Your task to perform on an android device: Open Android settings Image 0: 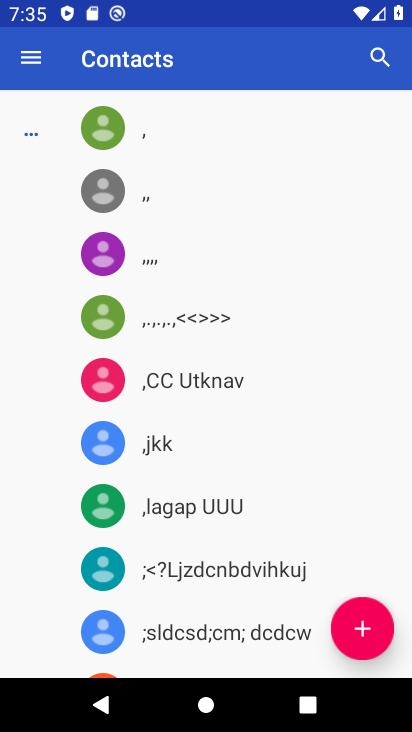
Step 0: press home button
Your task to perform on an android device: Open Android settings Image 1: 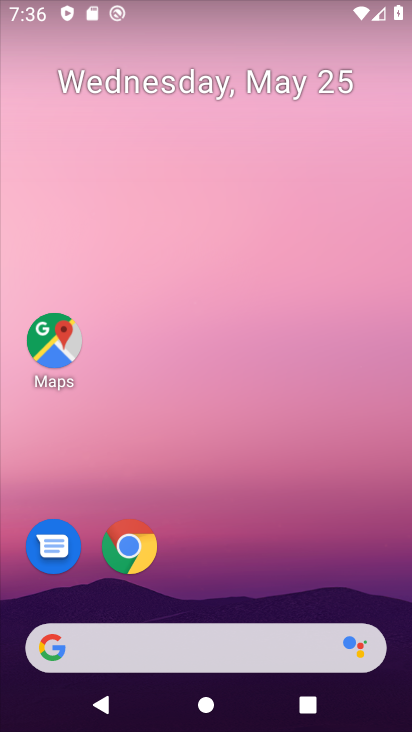
Step 1: drag from (220, 561) to (251, 197)
Your task to perform on an android device: Open Android settings Image 2: 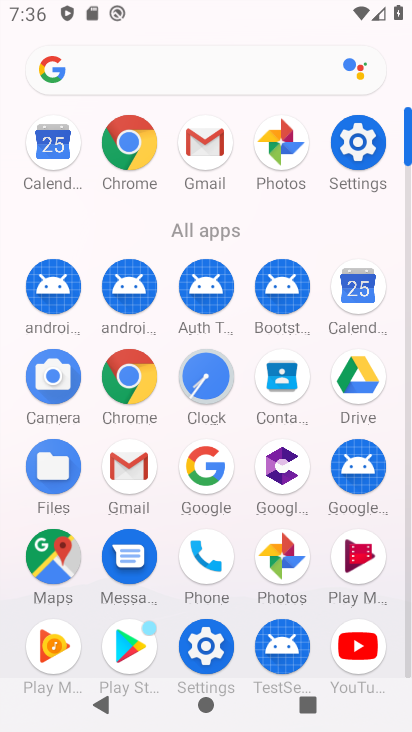
Step 2: click (349, 159)
Your task to perform on an android device: Open Android settings Image 3: 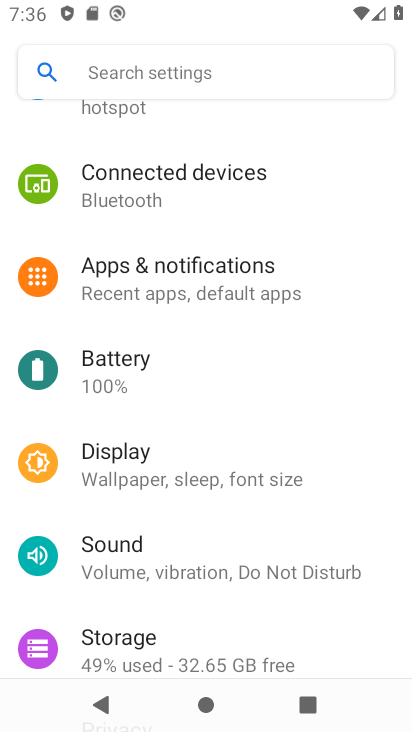
Step 3: drag from (201, 608) to (162, 154)
Your task to perform on an android device: Open Android settings Image 4: 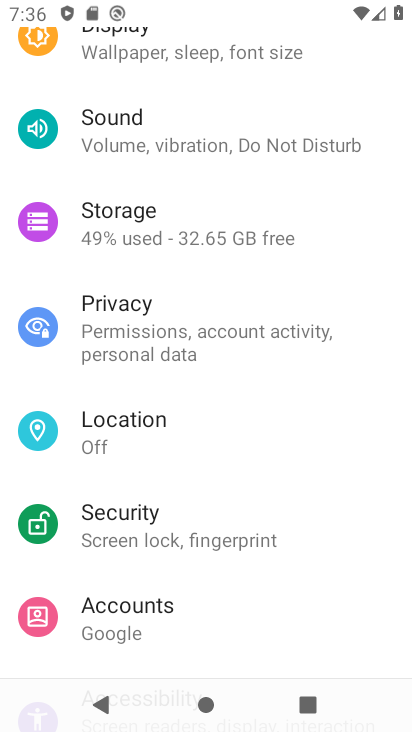
Step 4: drag from (180, 606) to (274, 201)
Your task to perform on an android device: Open Android settings Image 5: 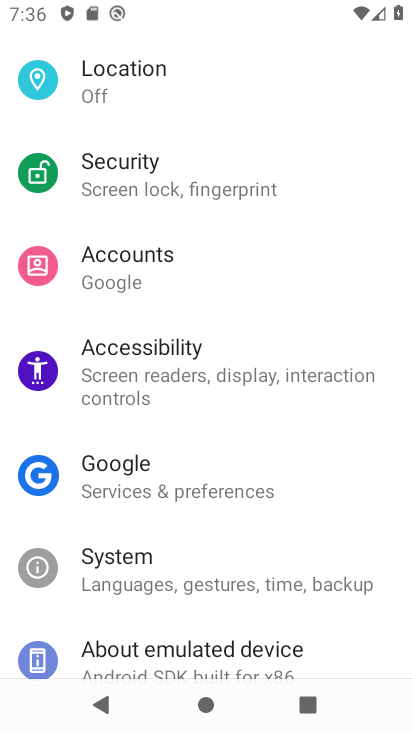
Step 5: click (143, 653)
Your task to perform on an android device: Open Android settings Image 6: 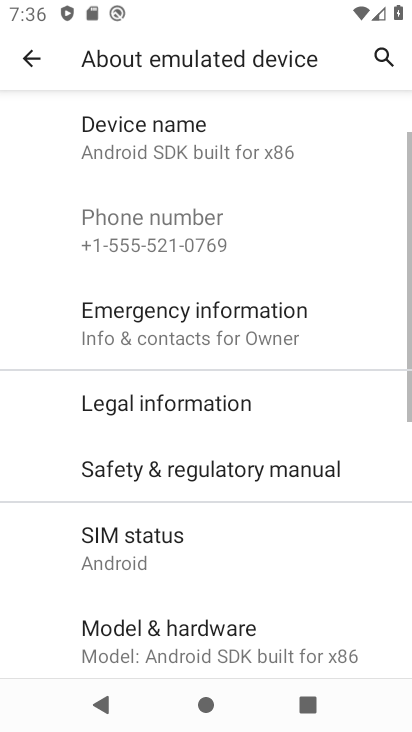
Step 6: drag from (176, 628) to (201, 326)
Your task to perform on an android device: Open Android settings Image 7: 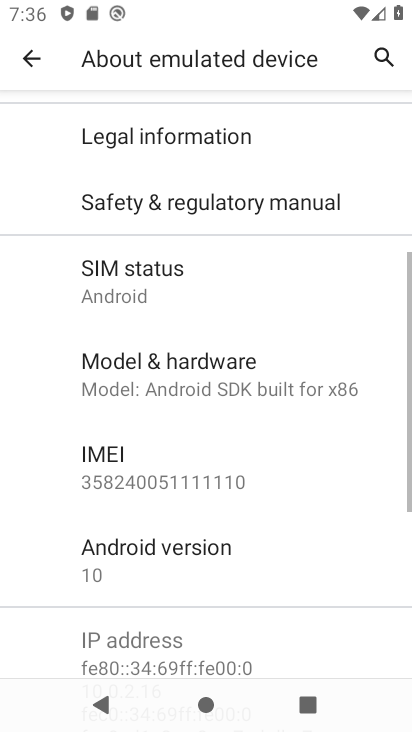
Step 7: drag from (190, 630) to (246, 268)
Your task to perform on an android device: Open Android settings Image 8: 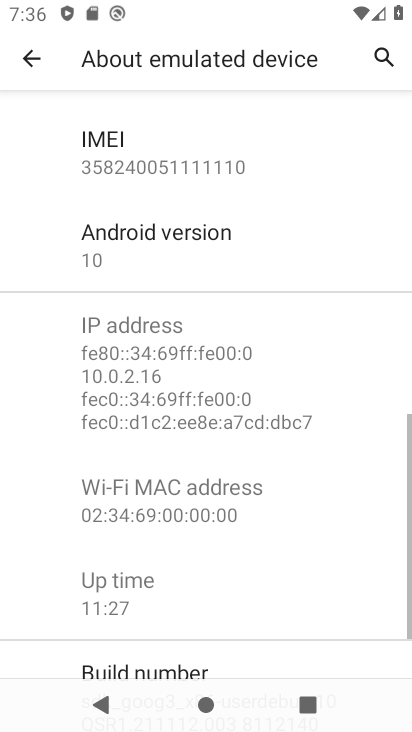
Step 8: click (224, 256)
Your task to perform on an android device: Open Android settings Image 9: 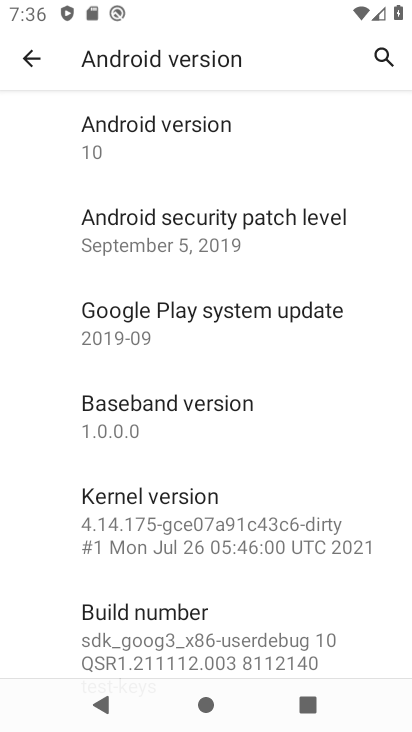
Step 9: task complete